Your task to perform on an android device: Open calendar and show me the first week of next month Image 0: 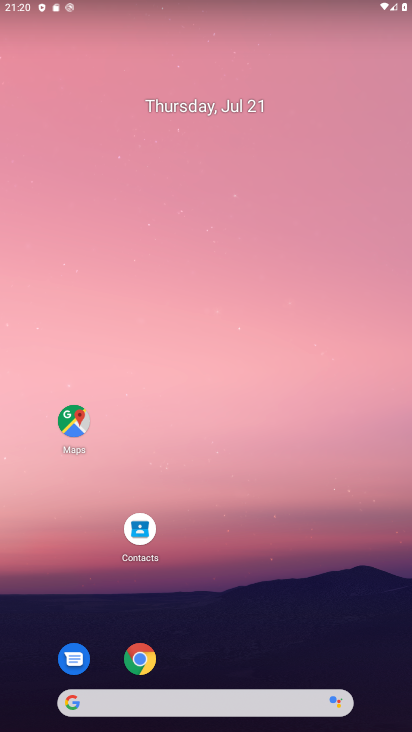
Step 0: drag from (286, 697) to (280, 495)
Your task to perform on an android device: Open calendar and show me the first week of next month Image 1: 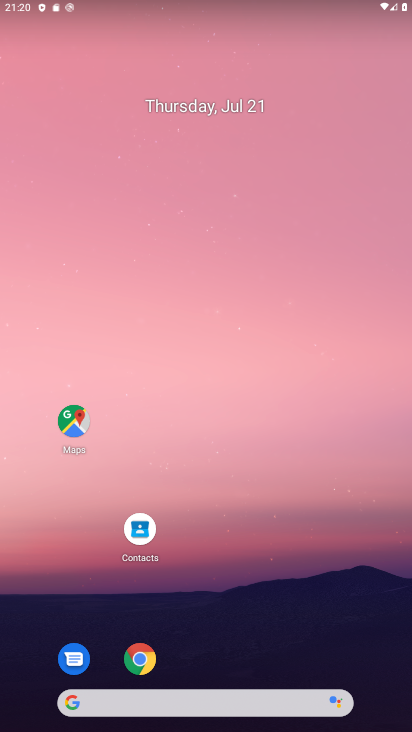
Step 1: drag from (57, 597) to (65, 532)
Your task to perform on an android device: Open calendar and show me the first week of next month Image 2: 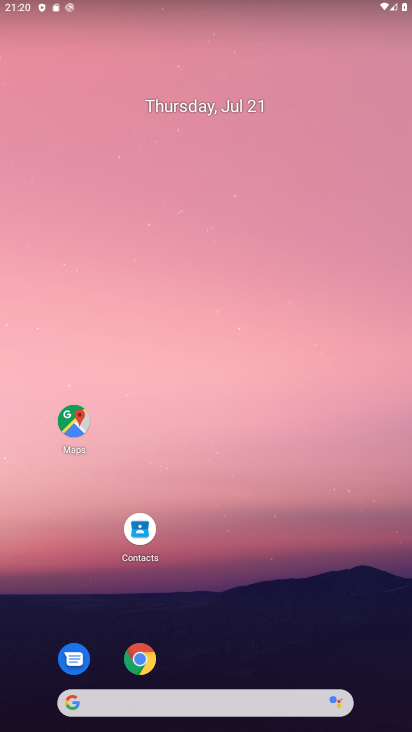
Step 2: drag from (154, 681) to (118, 271)
Your task to perform on an android device: Open calendar and show me the first week of next month Image 3: 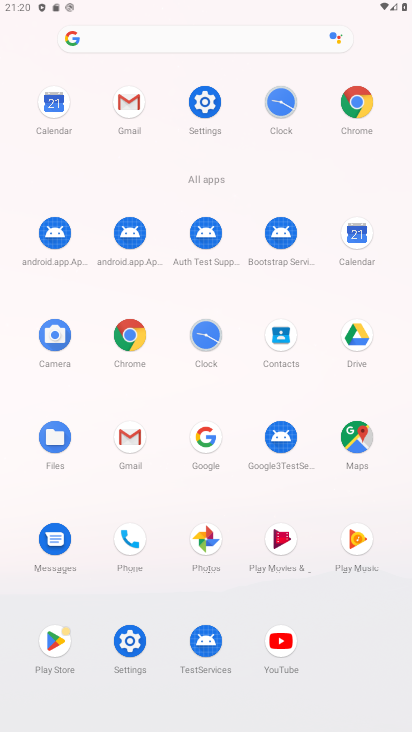
Step 3: click (359, 231)
Your task to perform on an android device: Open calendar and show me the first week of next month Image 4: 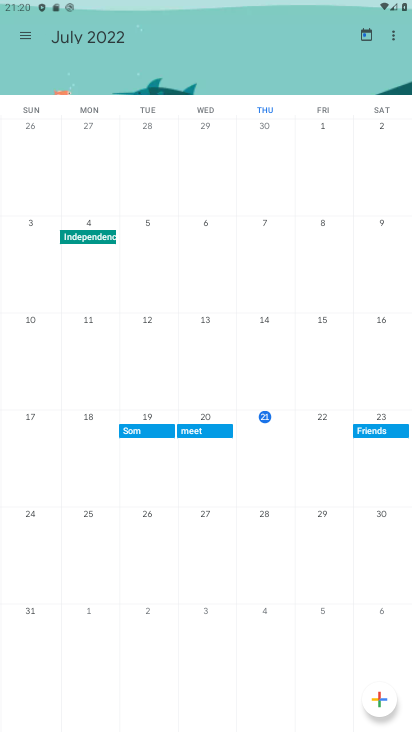
Step 4: click (108, 34)
Your task to perform on an android device: Open calendar and show me the first week of next month Image 5: 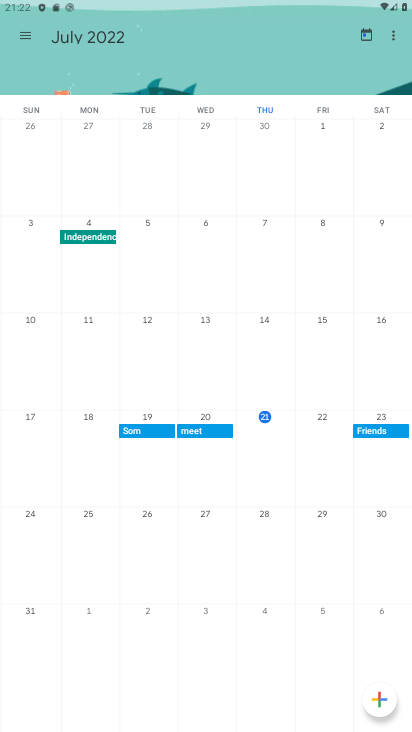
Step 5: drag from (392, 363) to (1, 376)
Your task to perform on an android device: Open calendar and show me the first week of next month Image 6: 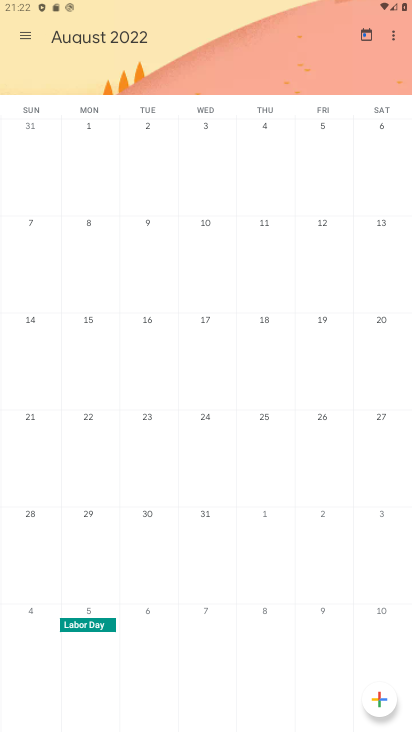
Step 6: click (215, 221)
Your task to perform on an android device: Open calendar and show me the first week of next month Image 7: 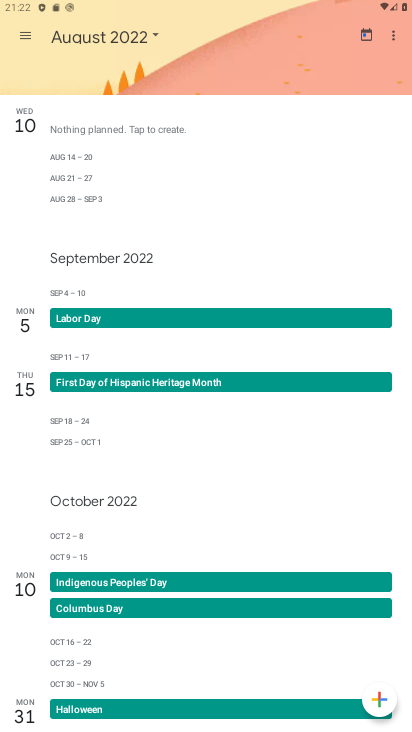
Step 7: click (177, 398)
Your task to perform on an android device: Open calendar and show me the first week of next month Image 8: 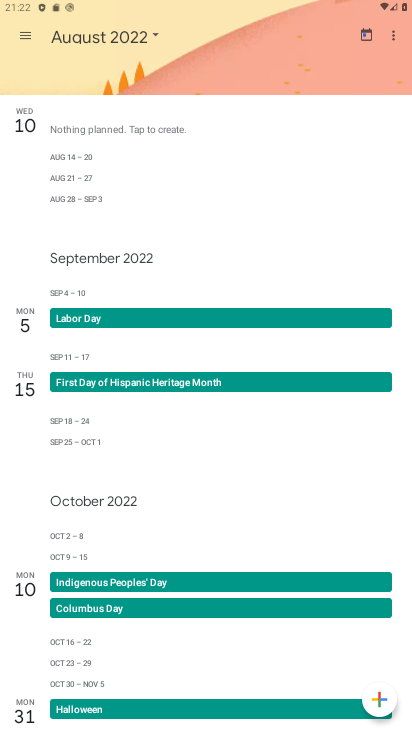
Step 8: click (156, 34)
Your task to perform on an android device: Open calendar and show me the first week of next month Image 9: 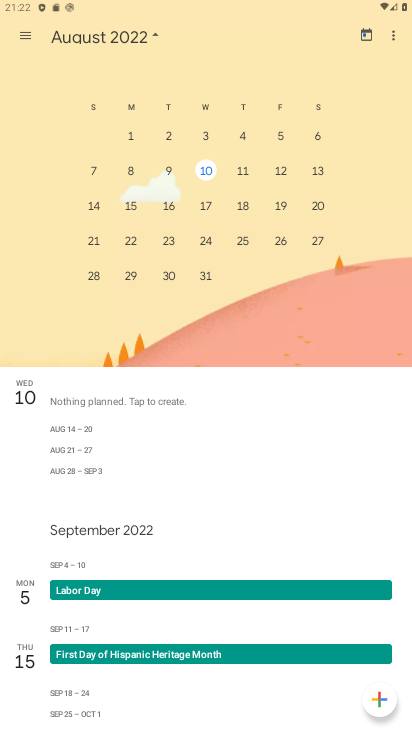
Step 9: task complete